Your task to perform on an android device: change the clock display to digital Image 0: 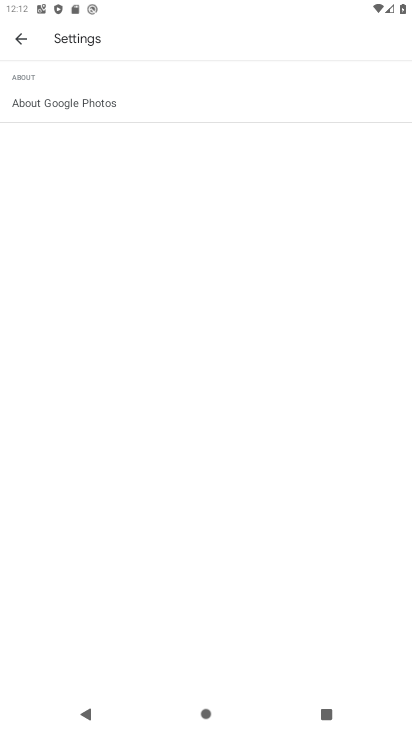
Step 0: press home button
Your task to perform on an android device: change the clock display to digital Image 1: 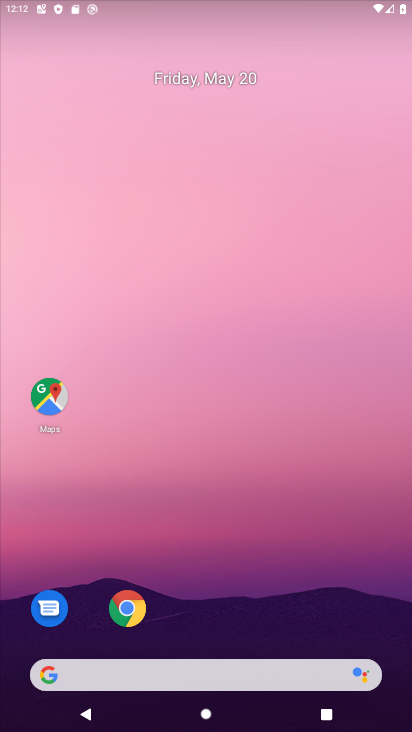
Step 1: drag from (379, 590) to (287, 164)
Your task to perform on an android device: change the clock display to digital Image 2: 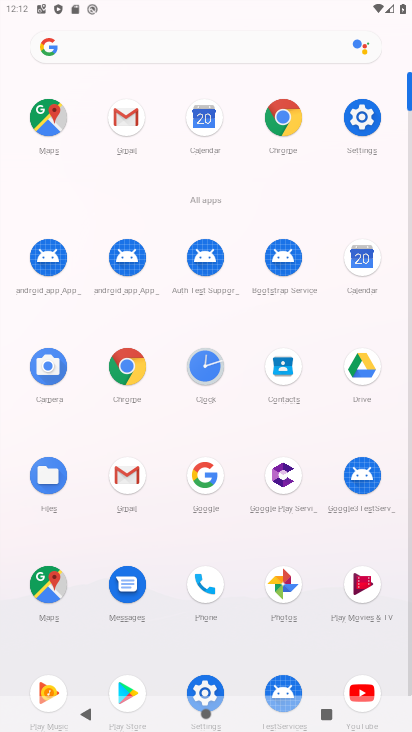
Step 2: click (209, 360)
Your task to perform on an android device: change the clock display to digital Image 3: 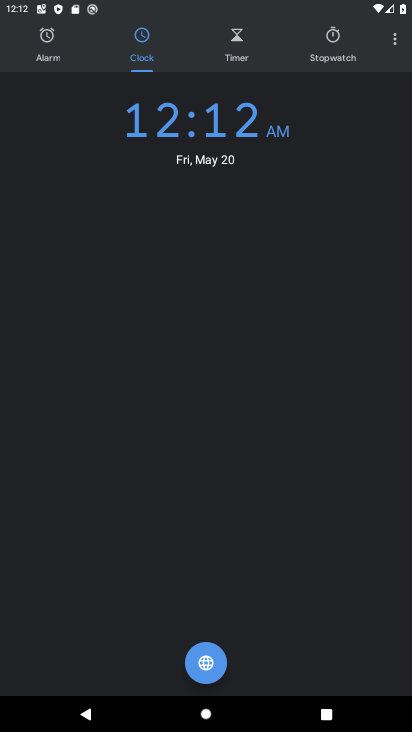
Step 3: click (395, 53)
Your task to perform on an android device: change the clock display to digital Image 4: 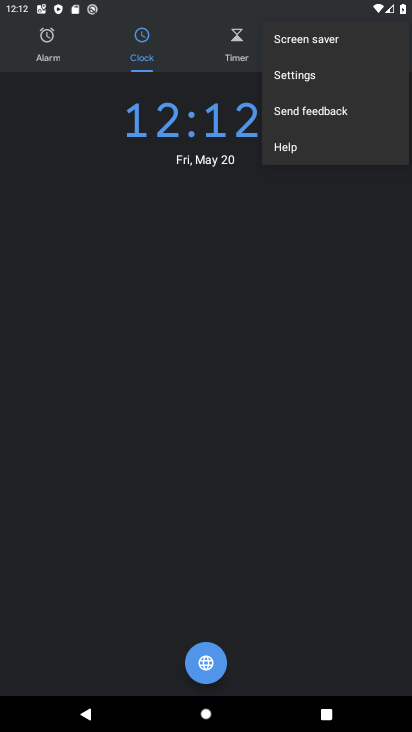
Step 4: click (361, 79)
Your task to perform on an android device: change the clock display to digital Image 5: 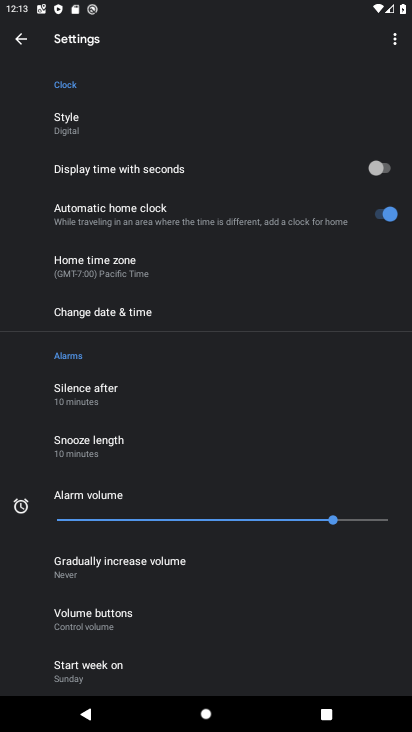
Step 5: click (126, 119)
Your task to perform on an android device: change the clock display to digital Image 6: 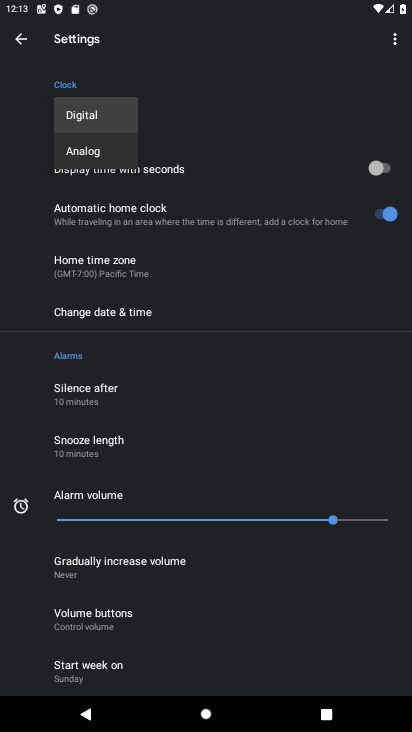
Step 6: task complete